Your task to perform on an android device: turn on improve location accuracy Image 0: 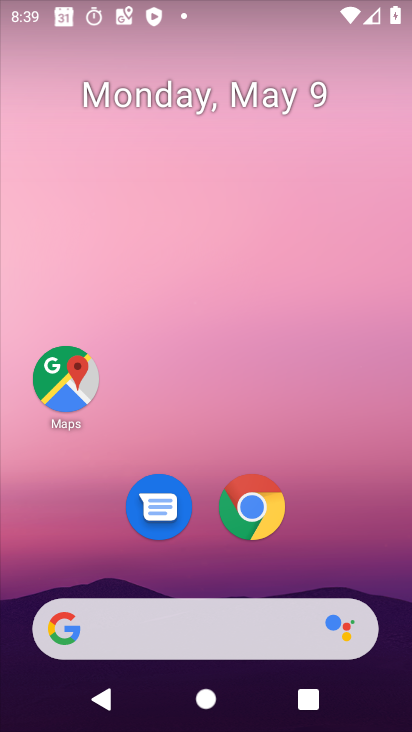
Step 0: drag from (250, 637) to (245, 162)
Your task to perform on an android device: turn on improve location accuracy Image 1: 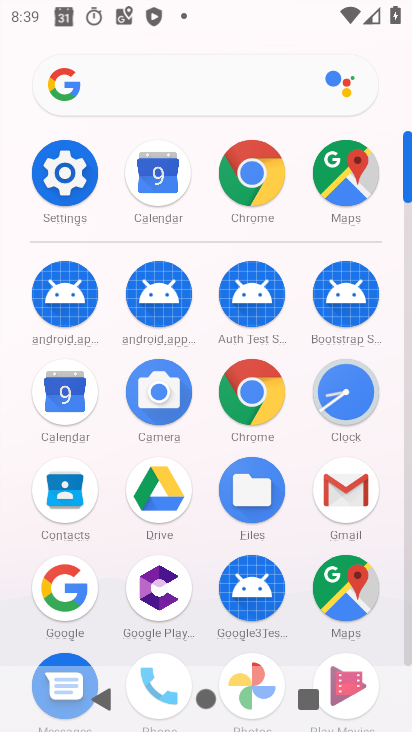
Step 1: click (74, 153)
Your task to perform on an android device: turn on improve location accuracy Image 2: 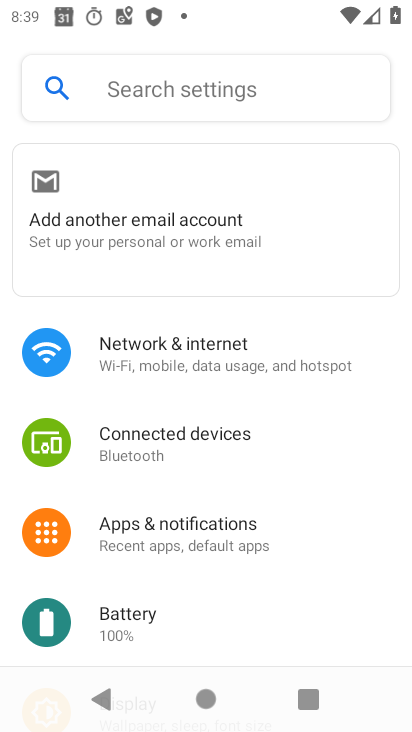
Step 2: click (152, 94)
Your task to perform on an android device: turn on improve location accuracy Image 3: 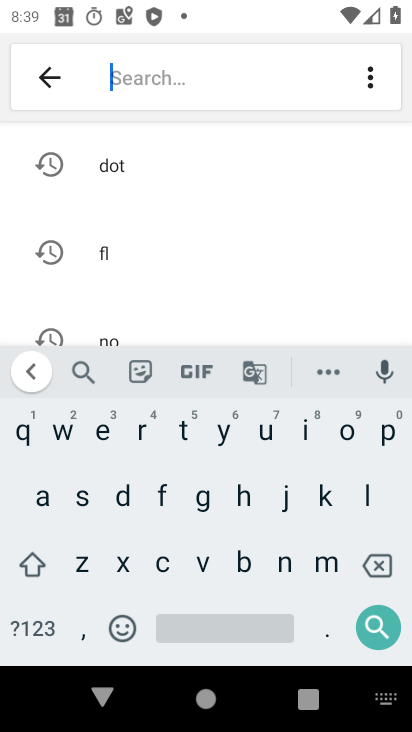
Step 3: click (33, 517)
Your task to perform on an android device: turn on improve location accuracy Image 4: 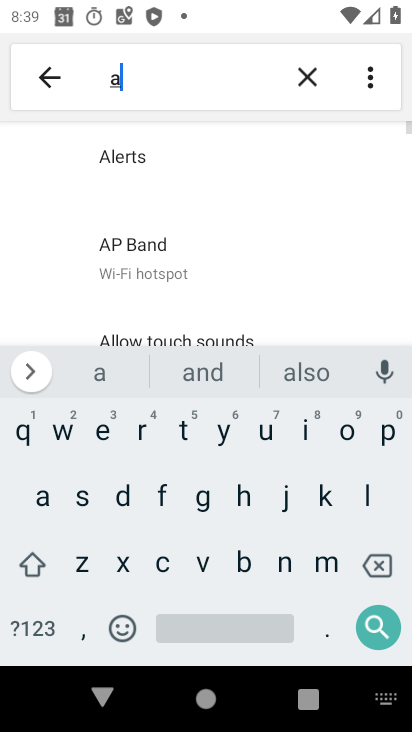
Step 4: click (307, 71)
Your task to perform on an android device: turn on improve location accuracy Image 5: 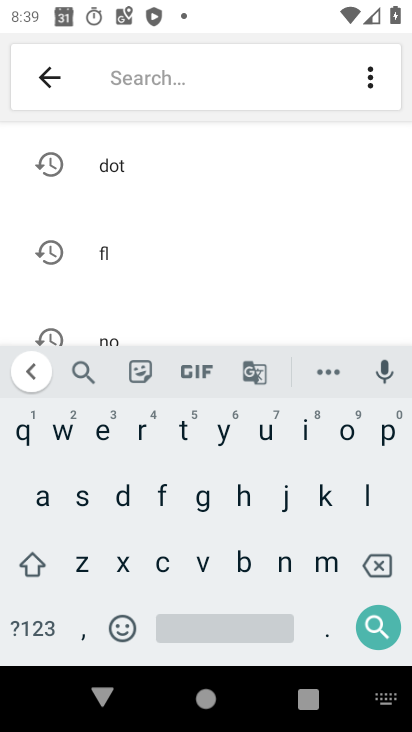
Step 5: click (369, 495)
Your task to perform on an android device: turn on improve location accuracy Image 6: 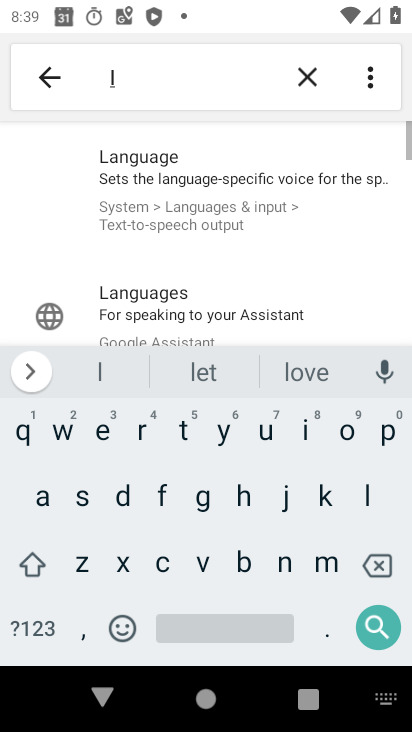
Step 6: click (345, 436)
Your task to perform on an android device: turn on improve location accuracy Image 7: 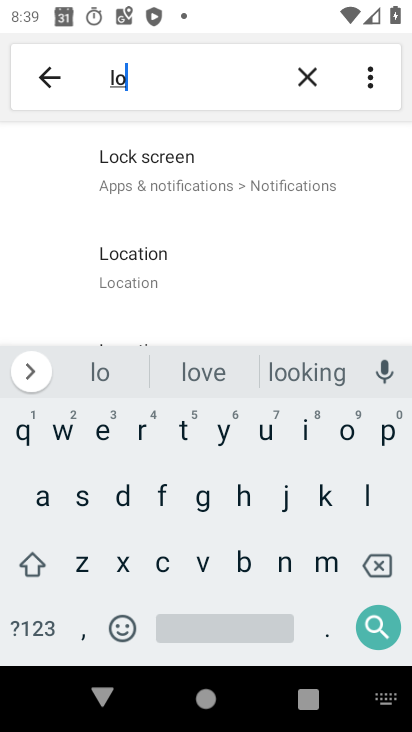
Step 7: click (146, 255)
Your task to perform on an android device: turn on improve location accuracy Image 8: 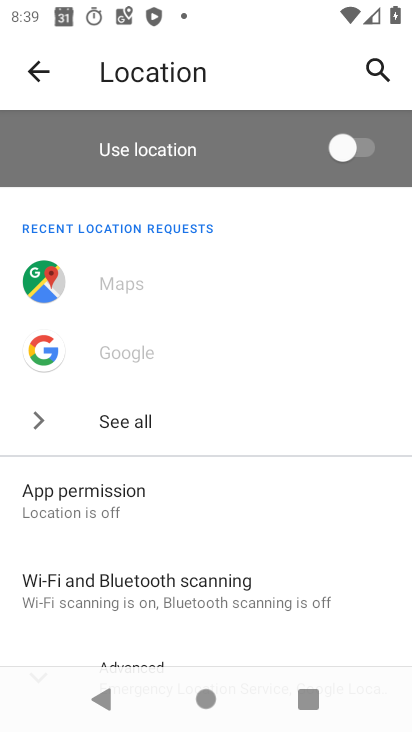
Step 8: drag from (212, 512) to (203, 275)
Your task to perform on an android device: turn on improve location accuracy Image 9: 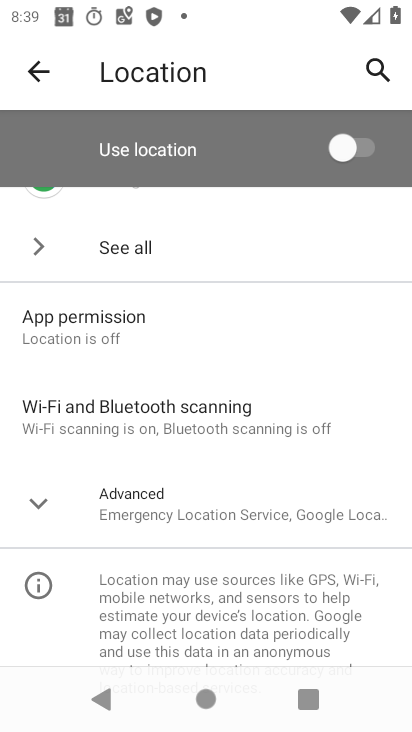
Step 9: click (124, 489)
Your task to perform on an android device: turn on improve location accuracy Image 10: 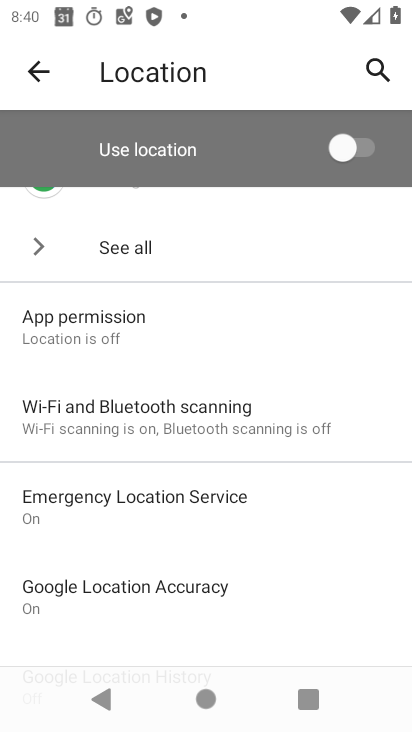
Step 10: click (119, 578)
Your task to perform on an android device: turn on improve location accuracy Image 11: 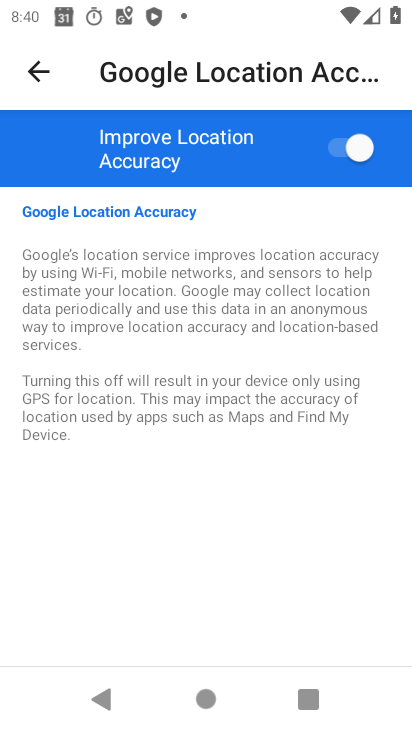
Step 11: click (362, 162)
Your task to perform on an android device: turn on improve location accuracy Image 12: 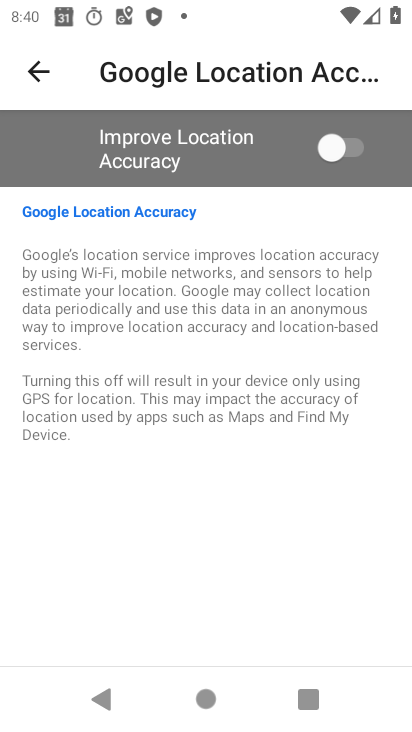
Step 12: click (362, 162)
Your task to perform on an android device: turn on improve location accuracy Image 13: 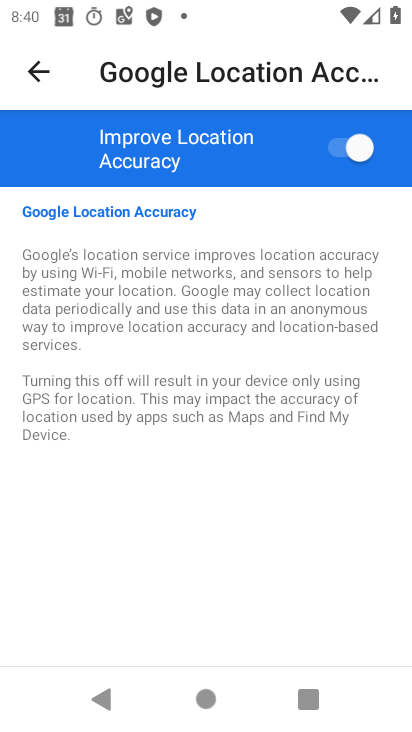
Step 13: task complete